Your task to perform on an android device: Is it going to rain today? Image 0: 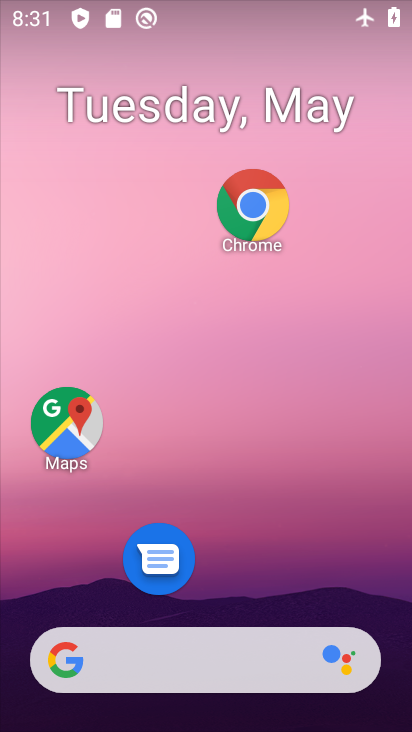
Step 0: drag from (254, 600) to (261, 178)
Your task to perform on an android device: Is it going to rain today? Image 1: 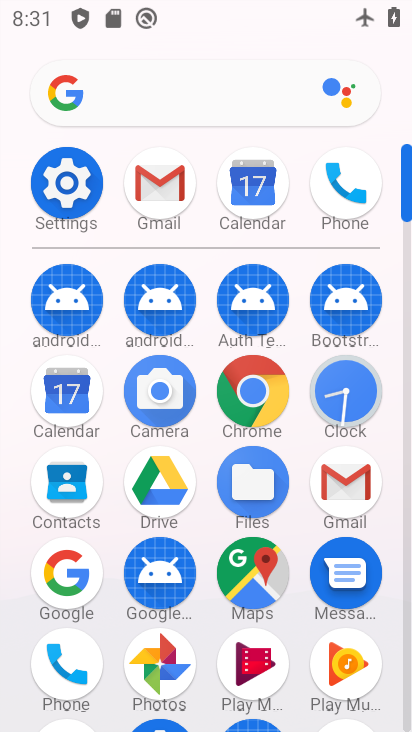
Step 1: click (76, 574)
Your task to perform on an android device: Is it going to rain today? Image 2: 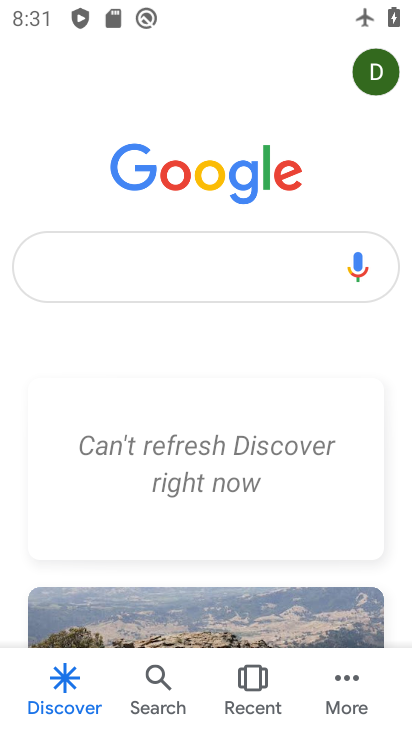
Step 2: click (181, 257)
Your task to perform on an android device: Is it going to rain today? Image 3: 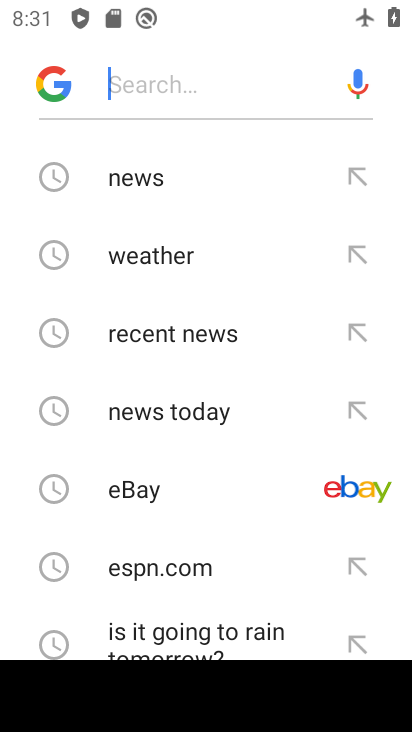
Step 3: click (172, 254)
Your task to perform on an android device: Is it going to rain today? Image 4: 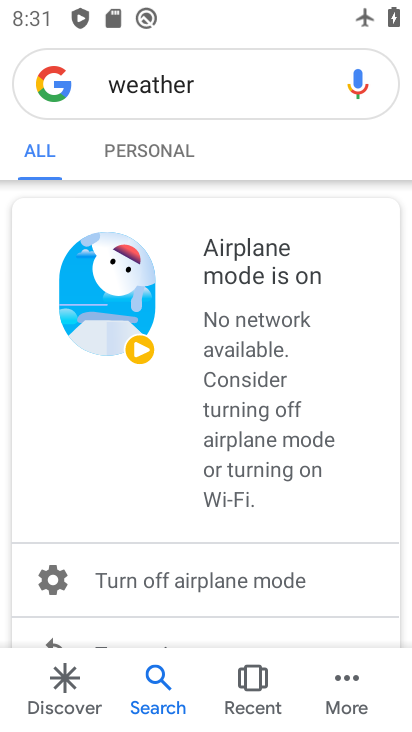
Step 4: task complete